Your task to perform on an android device: turn pop-ups off in chrome Image 0: 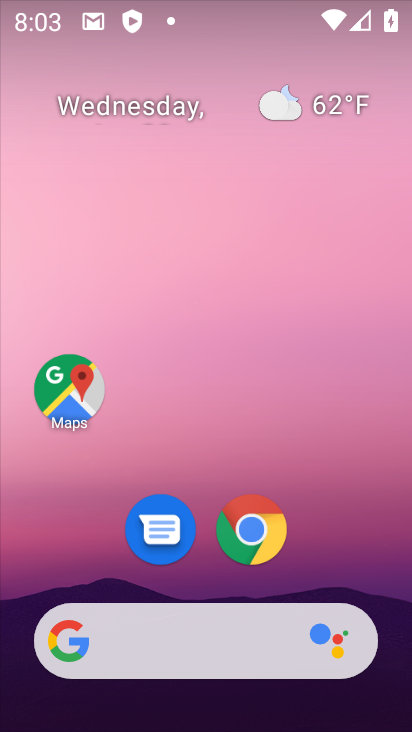
Step 0: click (252, 525)
Your task to perform on an android device: turn pop-ups off in chrome Image 1: 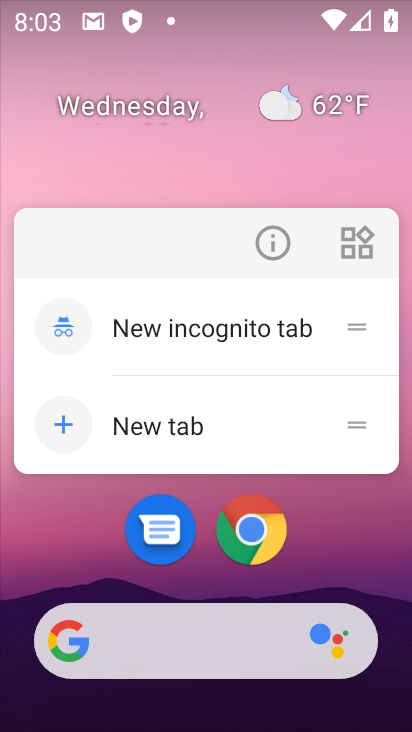
Step 1: click (267, 239)
Your task to perform on an android device: turn pop-ups off in chrome Image 2: 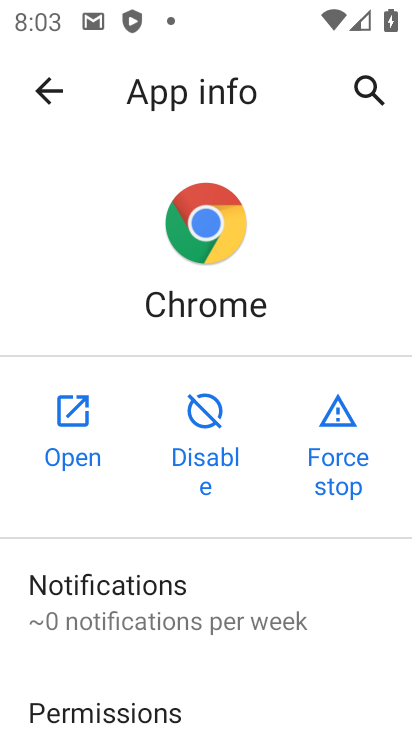
Step 2: click (64, 444)
Your task to perform on an android device: turn pop-ups off in chrome Image 3: 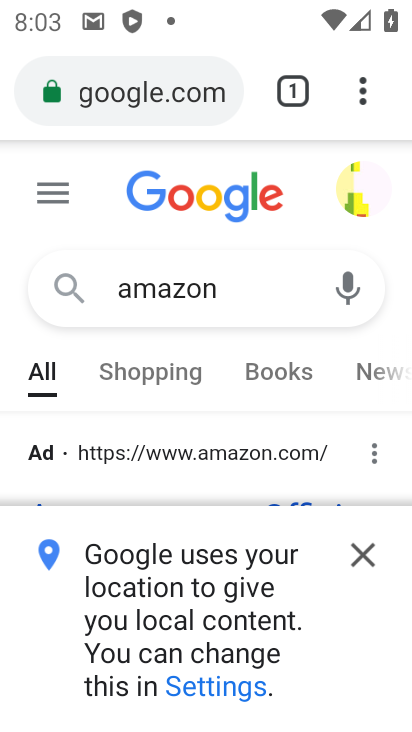
Step 3: click (364, 88)
Your task to perform on an android device: turn pop-ups off in chrome Image 4: 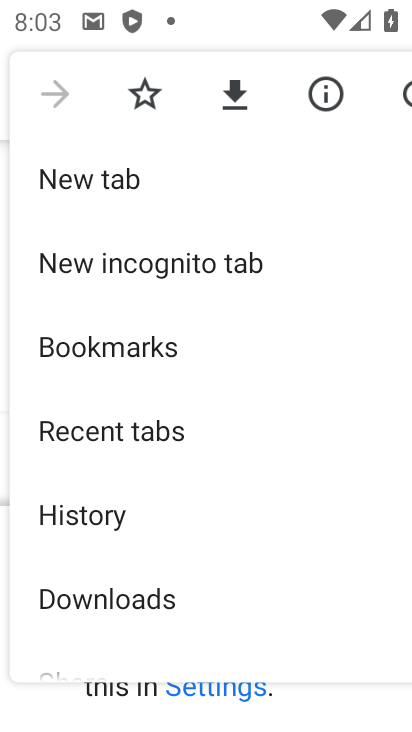
Step 4: drag from (175, 495) to (163, 136)
Your task to perform on an android device: turn pop-ups off in chrome Image 5: 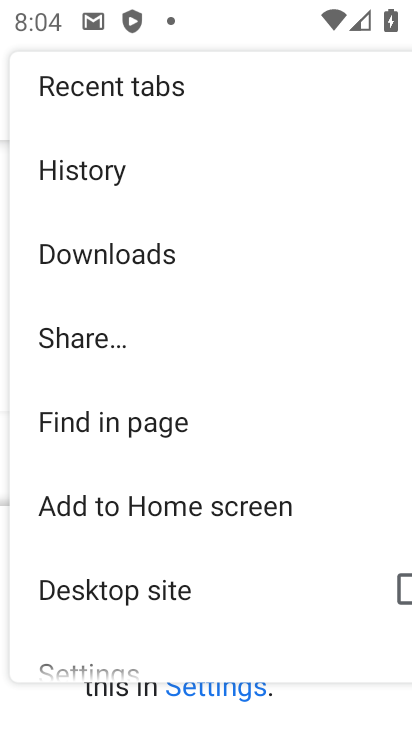
Step 5: drag from (155, 610) to (144, 383)
Your task to perform on an android device: turn pop-ups off in chrome Image 6: 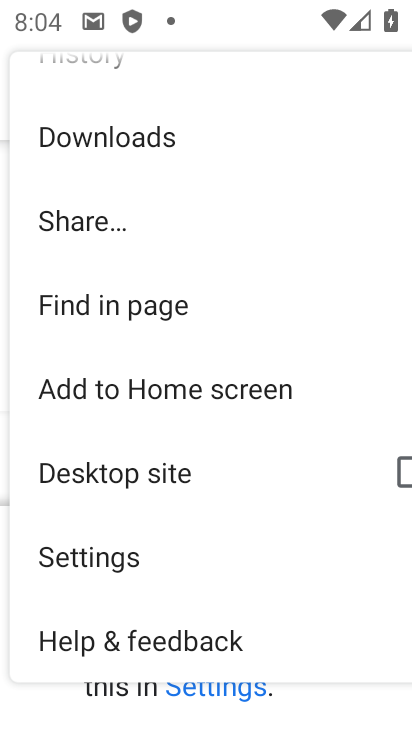
Step 6: click (99, 550)
Your task to perform on an android device: turn pop-ups off in chrome Image 7: 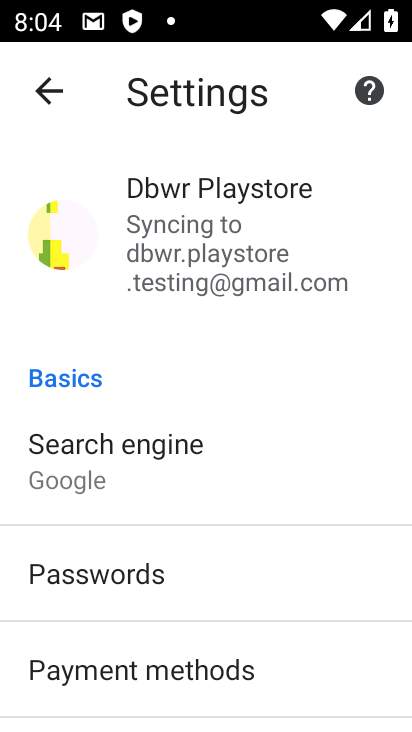
Step 7: drag from (144, 670) to (171, 308)
Your task to perform on an android device: turn pop-ups off in chrome Image 8: 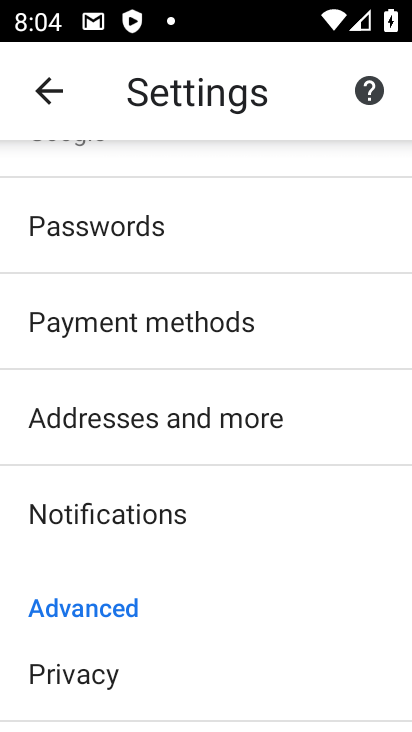
Step 8: drag from (187, 602) to (236, 304)
Your task to perform on an android device: turn pop-ups off in chrome Image 9: 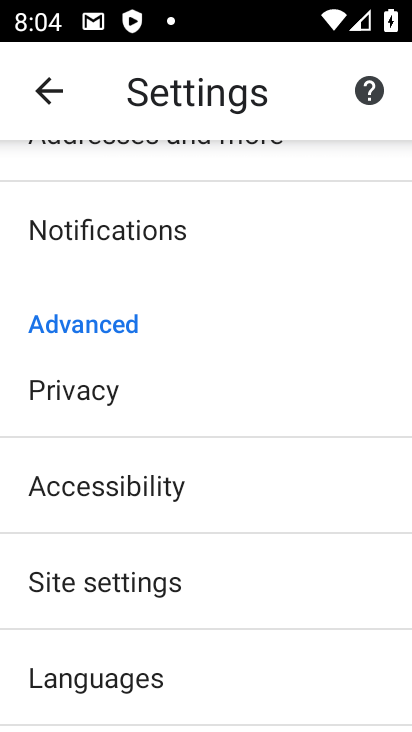
Step 9: click (65, 588)
Your task to perform on an android device: turn pop-ups off in chrome Image 10: 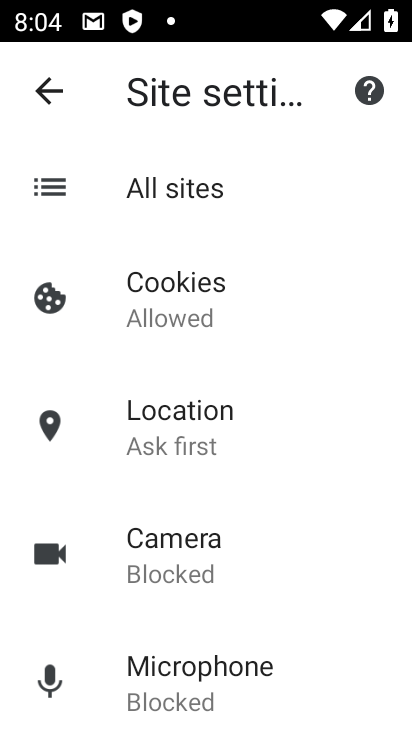
Step 10: drag from (190, 596) to (300, 160)
Your task to perform on an android device: turn pop-ups off in chrome Image 11: 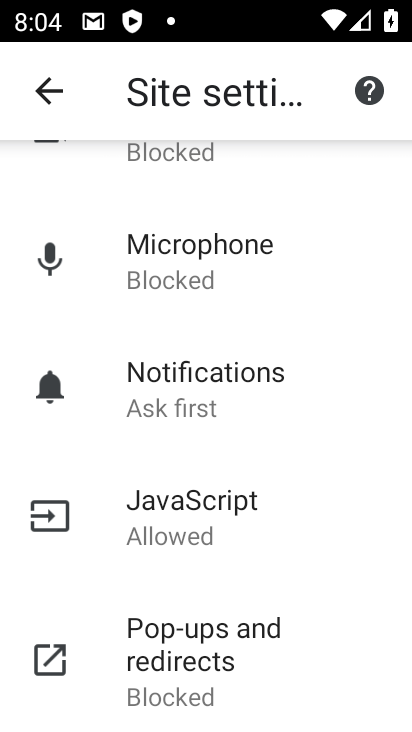
Step 11: click (187, 616)
Your task to perform on an android device: turn pop-ups off in chrome Image 12: 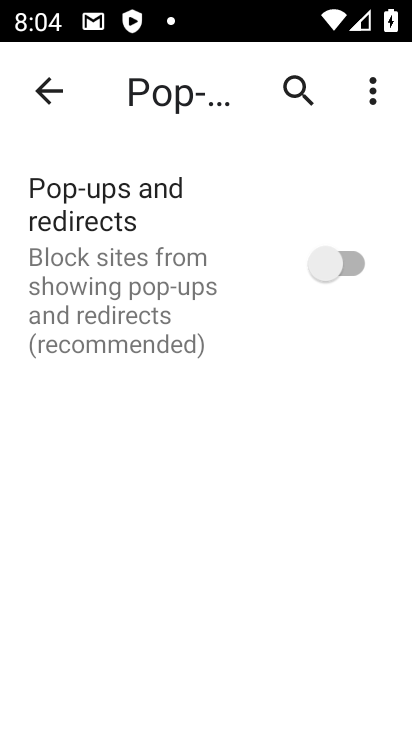
Step 12: task complete